Your task to perform on an android device: check data usage Image 0: 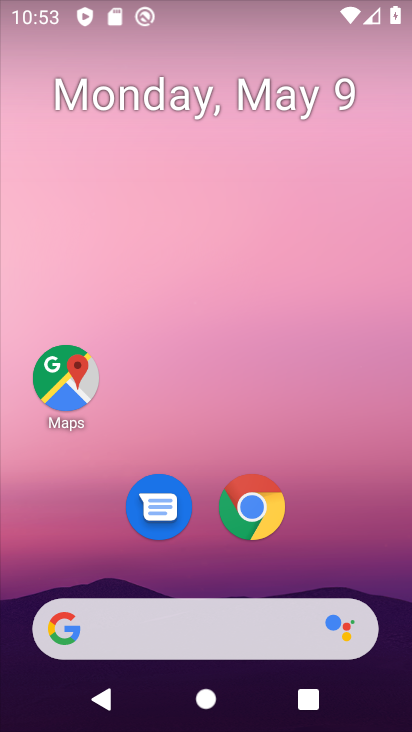
Step 0: drag from (330, 524) to (335, 73)
Your task to perform on an android device: check data usage Image 1: 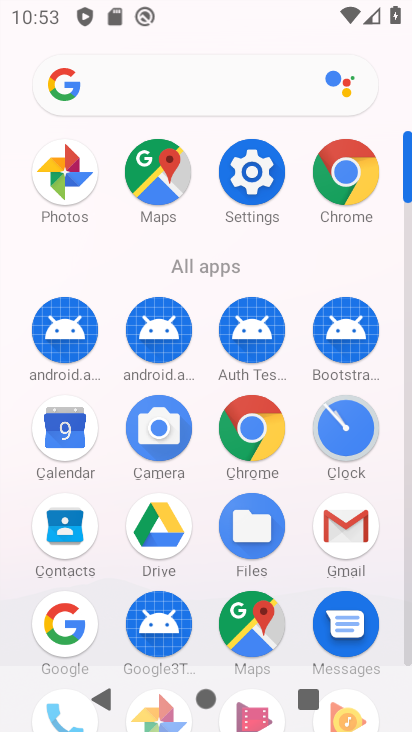
Step 1: click (260, 167)
Your task to perform on an android device: check data usage Image 2: 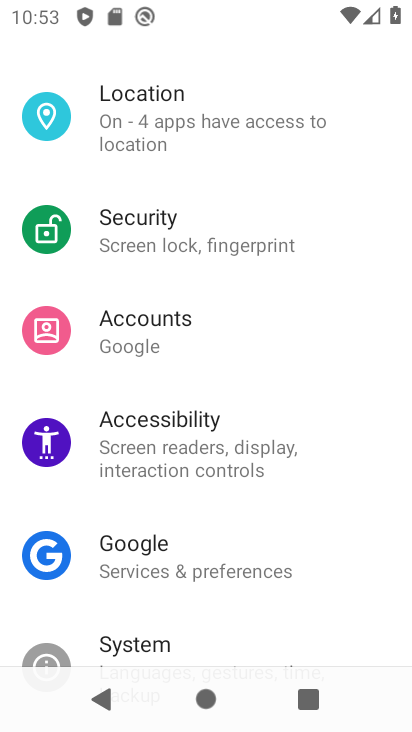
Step 2: drag from (230, 176) to (233, 606)
Your task to perform on an android device: check data usage Image 3: 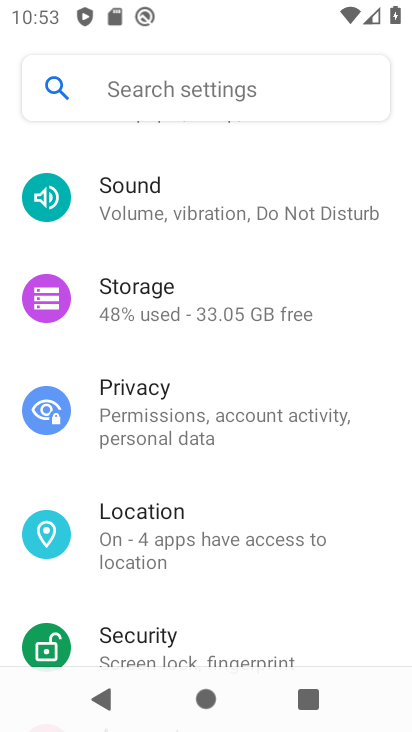
Step 3: drag from (243, 236) to (232, 672)
Your task to perform on an android device: check data usage Image 4: 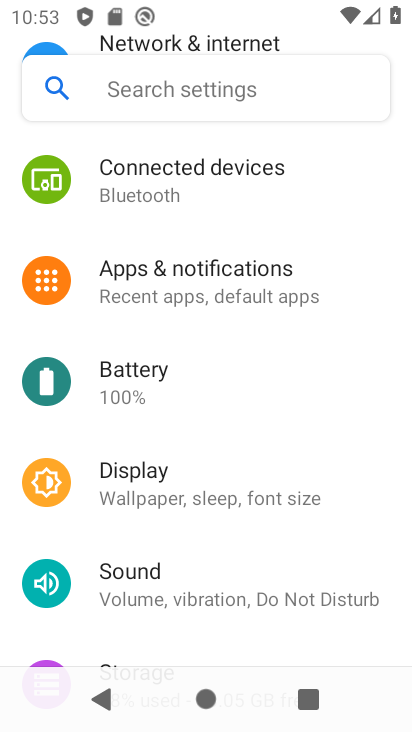
Step 4: drag from (237, 225) to (251, 619)
Your task to perform on an android device: check data usage Image 5: 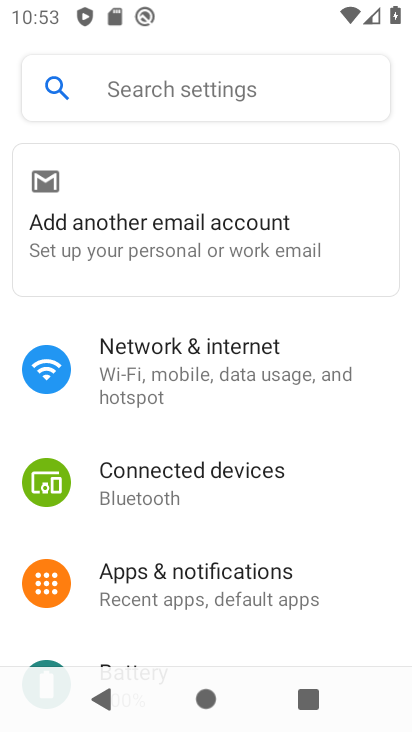
Step 5: click (207, 360)
Your task to perform on an android device: check data usage Image 6: 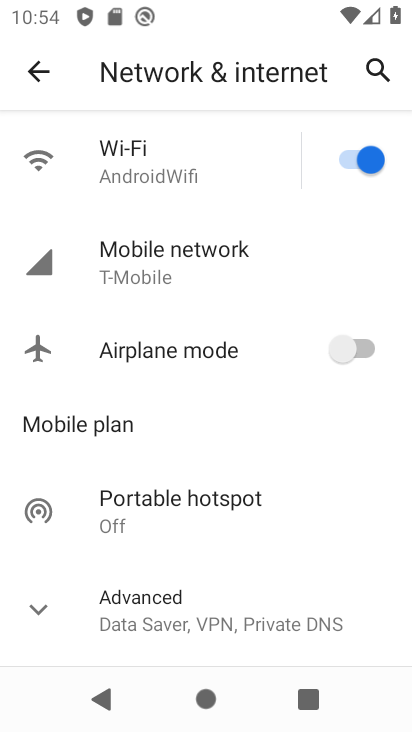
Step 6: click (194, 255)
Your task to perform on an android device: check data usage Image 7: 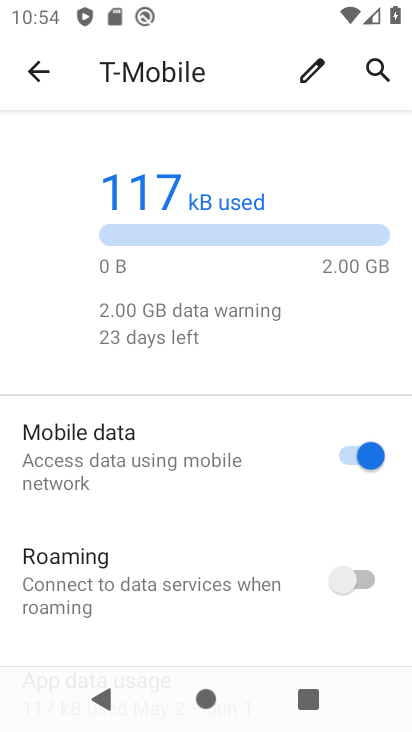
Step 7: drag from (169, 528) to (194, 163)
Your task to perform on an android device: check data usage Image 8: 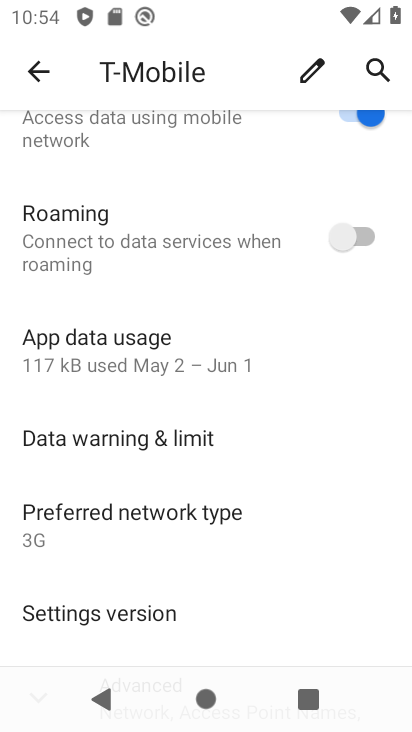
Step 8: click (164, 338)
Your task to perform on an android device: check data usage Image 9: 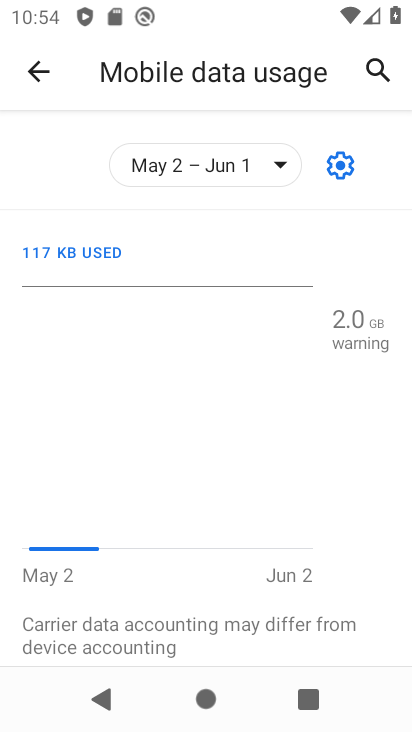
Step 9: task complete